Your task to perform on an android device: Go to location settings Image 0: 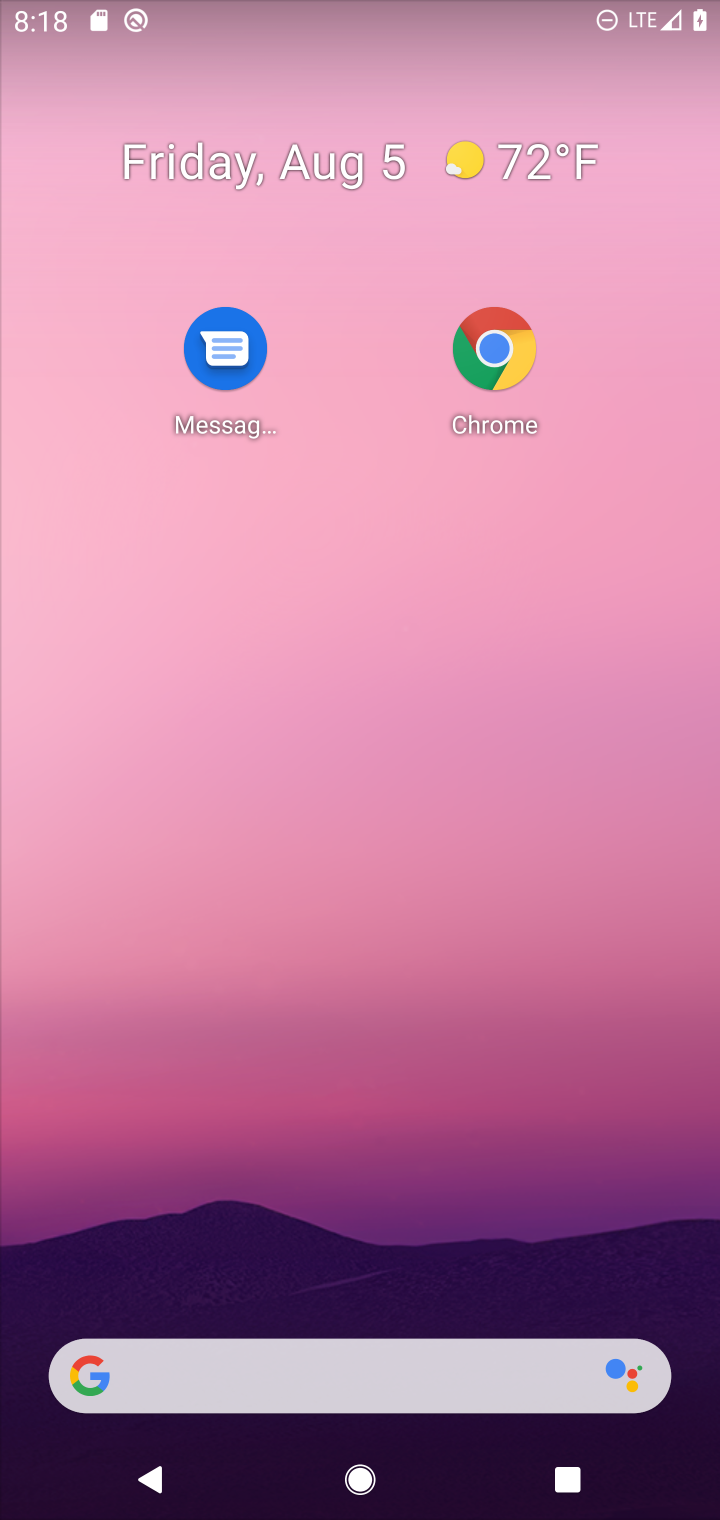
Step 0: press home button
Your task to perform on an android device: Go to location settings Image 1: 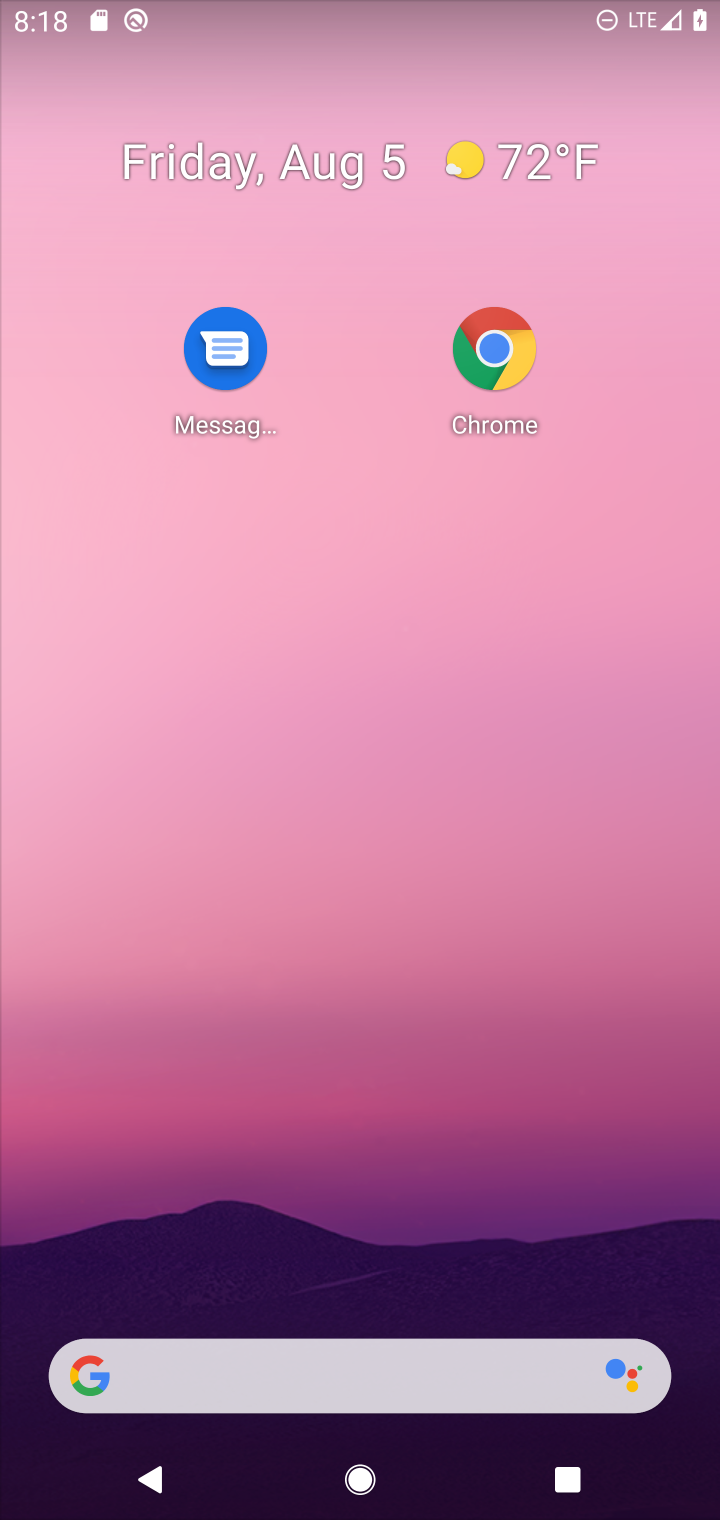
Step 1: drag from (460, 1422) to (404, 260)
Your task to perform on an android device: Go to location settings Image 2: 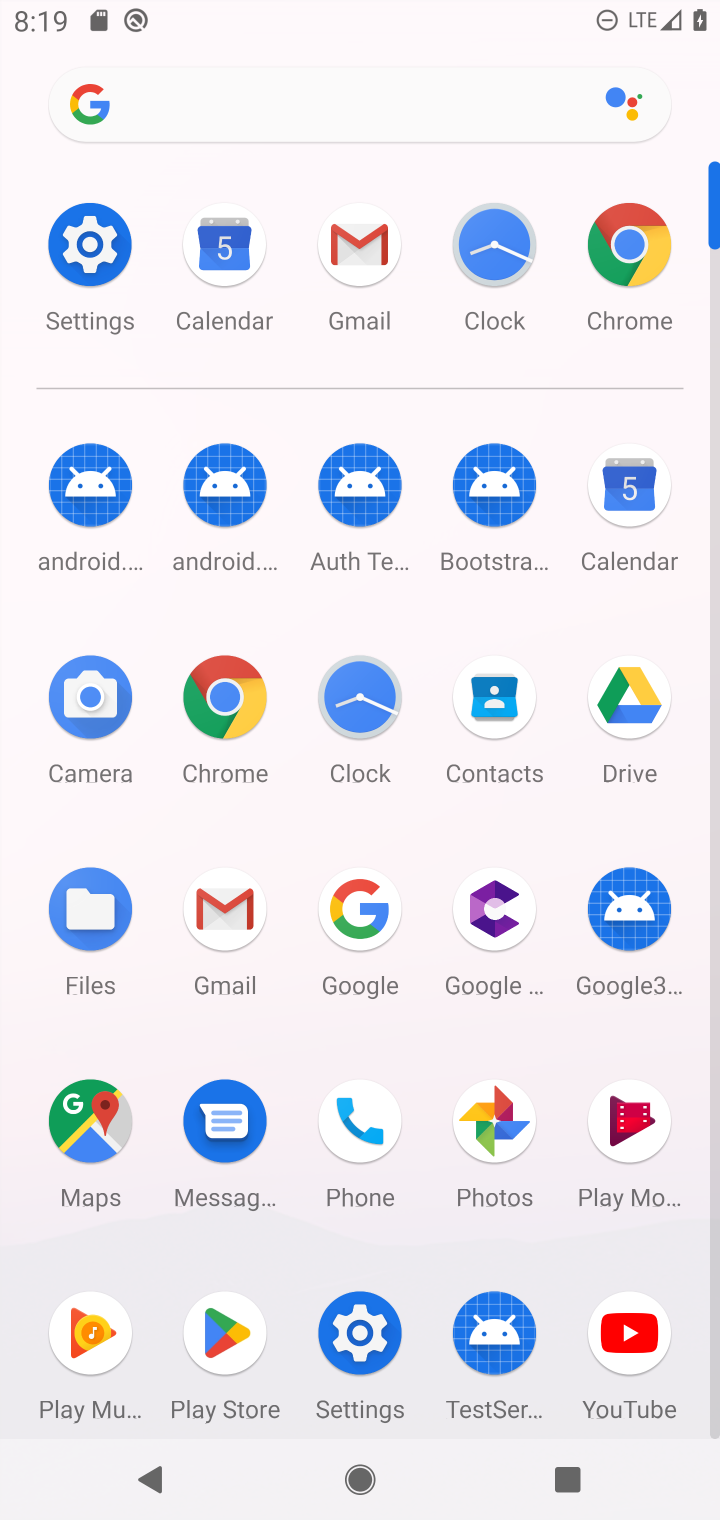
Step 2: click (92, 271)
Your task to perform on an android device: Go to location settings Image 3: 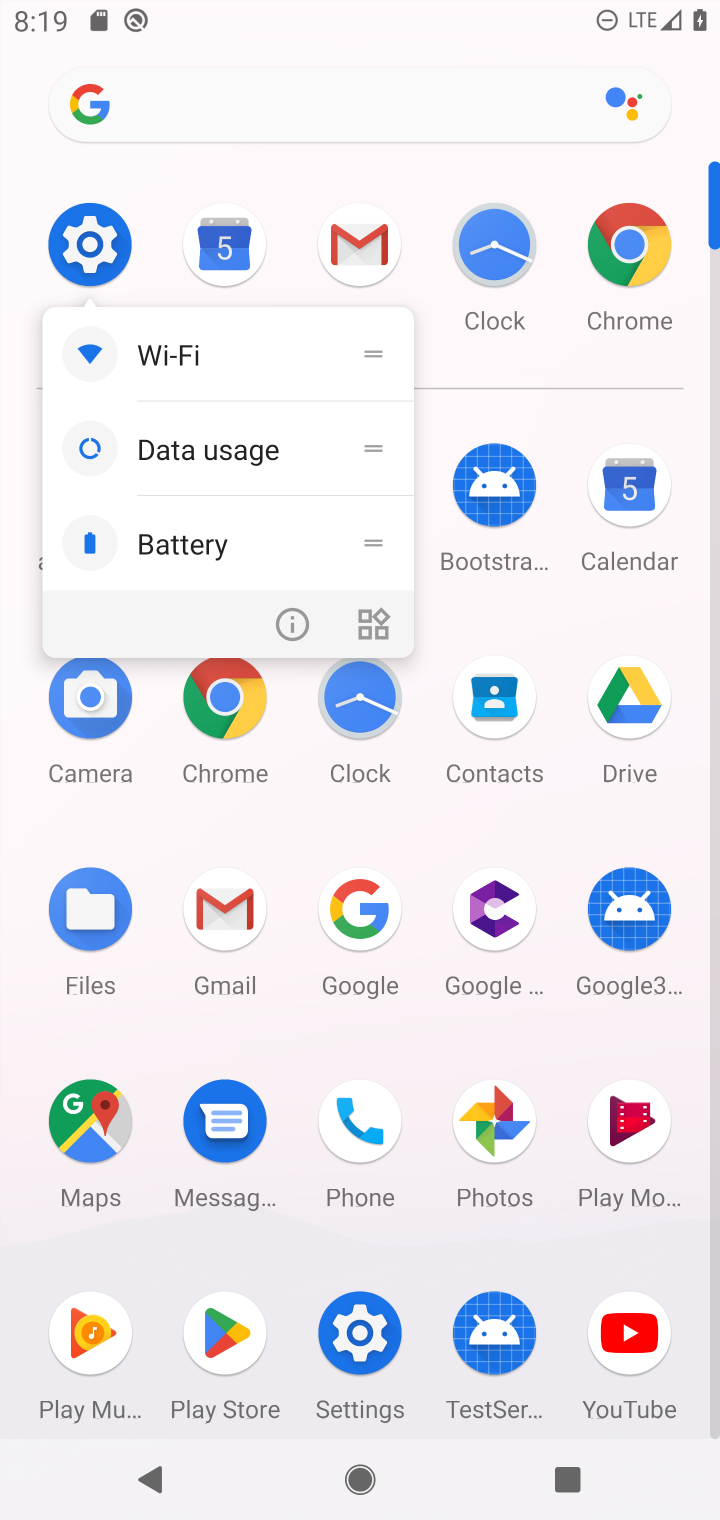
Step 3: click (97, 232)
Your task to perform on an android device: Go to location settings Image 4: 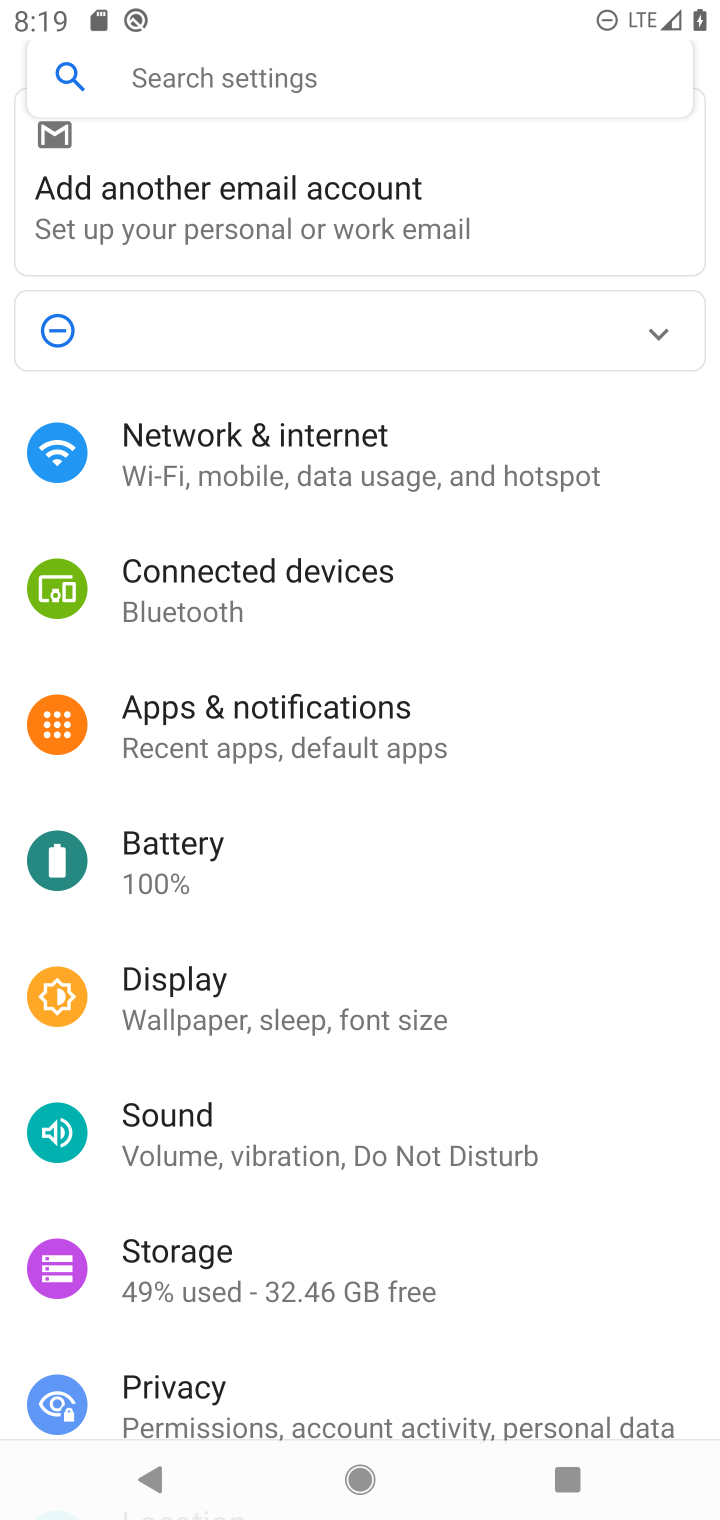
Step 4: click (218, 87)
Your task to perform on an android device: Go to location settings Image 5: 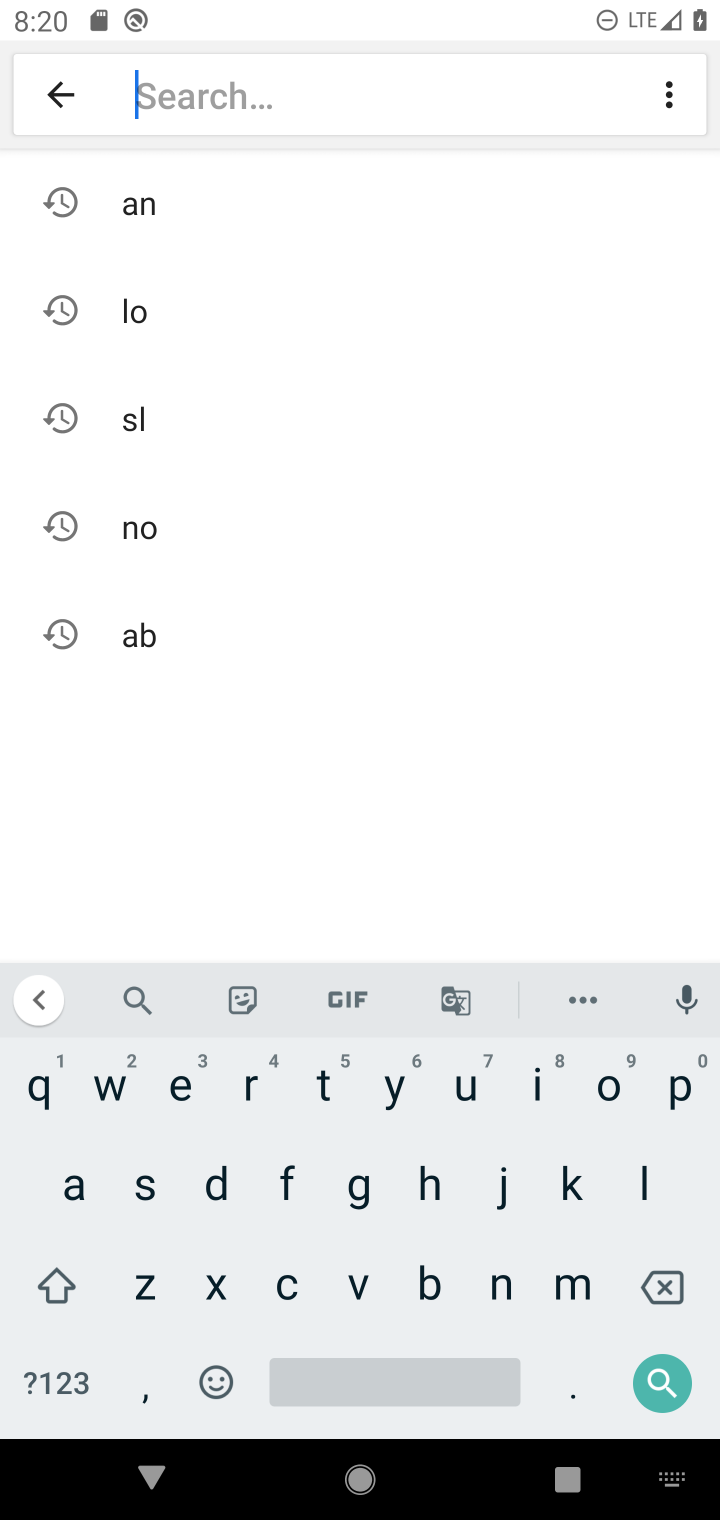
Step 5: click (223, 324)
Your task to perform on an android device: Go to location settings Image 6: 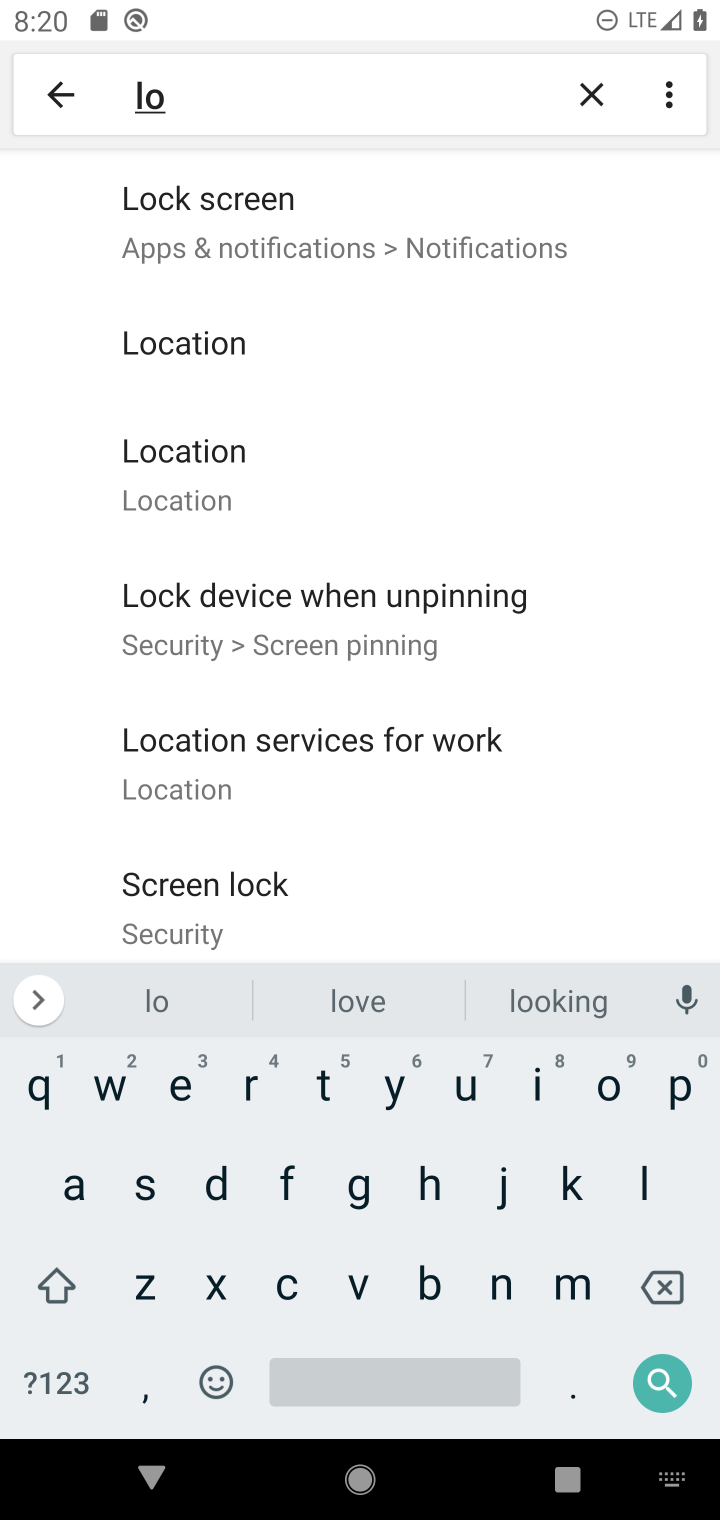
Step 6: click (189, 473)
Your task to perform on an android device: Go to location settings Image 7: 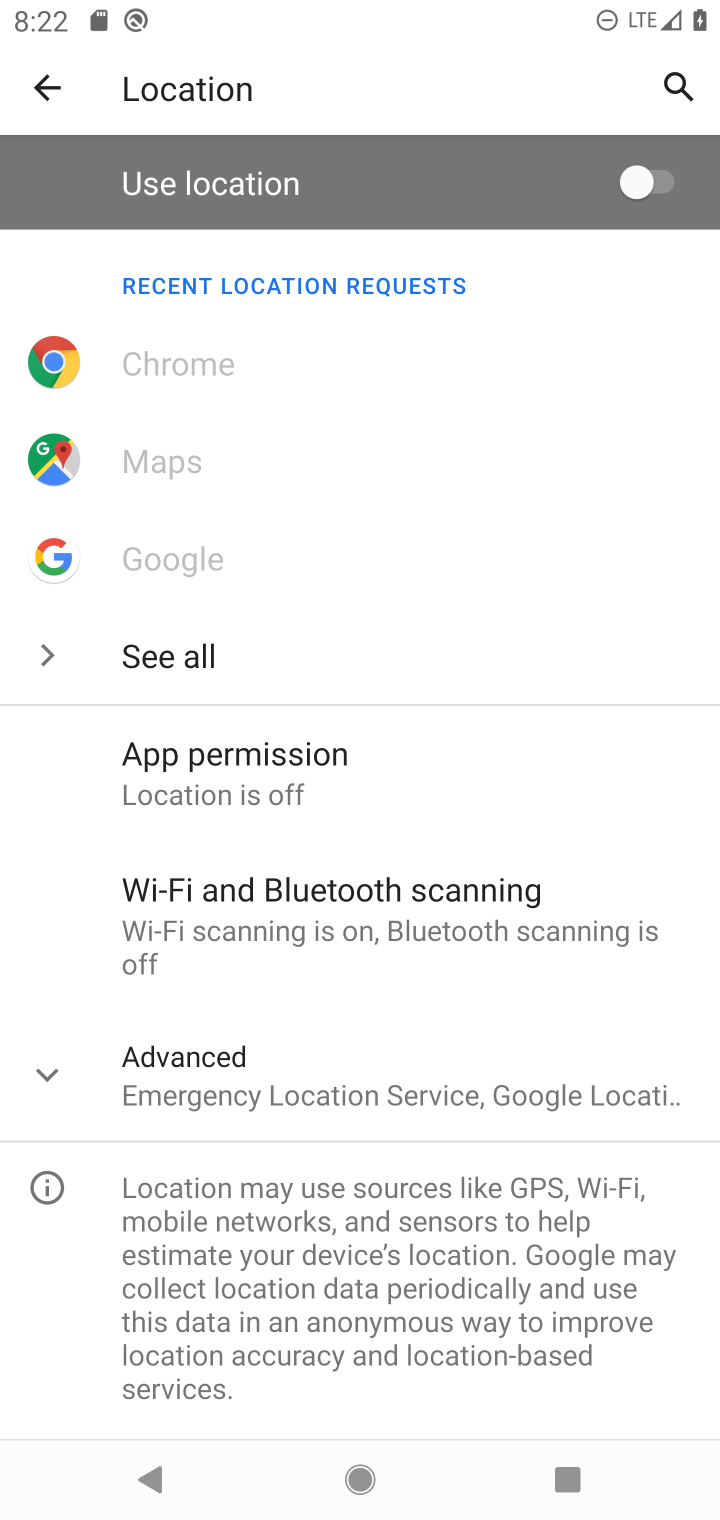
Step 7: task complete